Your task to perform on an android device: Open eBay Image 0: 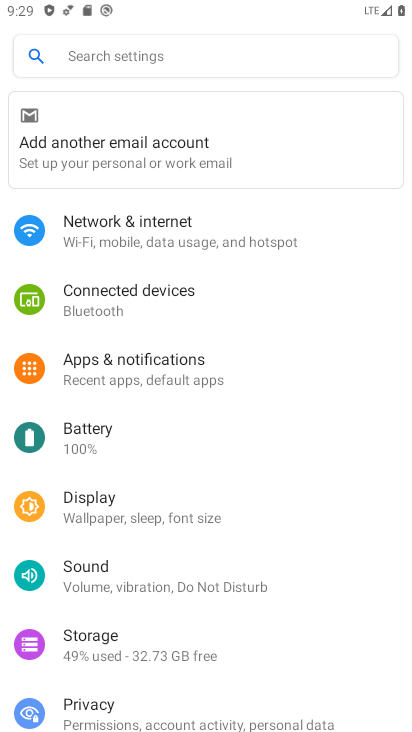
Step 0: press home button
Your task to perform on an android device: Open eBay Image 1: 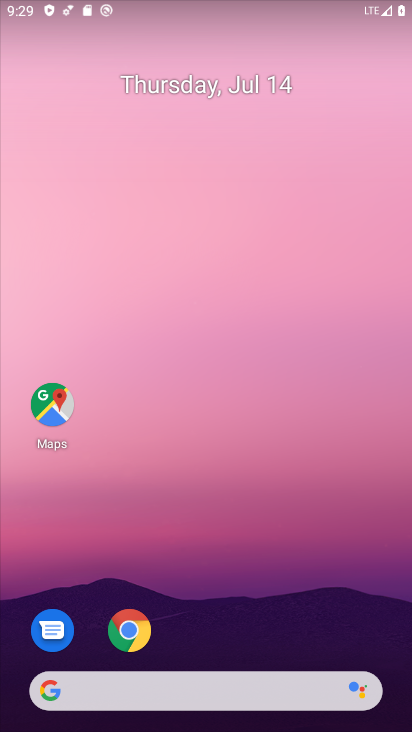
Step 1: drag from (184, 667) to (247, 108)
Your task to perform on an android device: Open eBay Image 2: 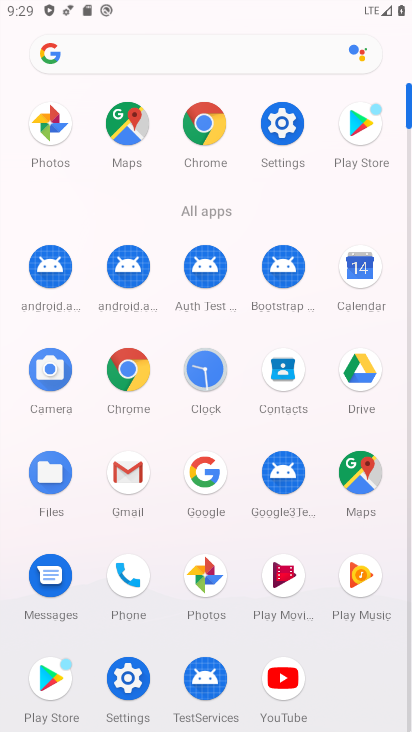
Step 2: click (131, 386)
Your task to perform on an android device: Open eBay Image 3: 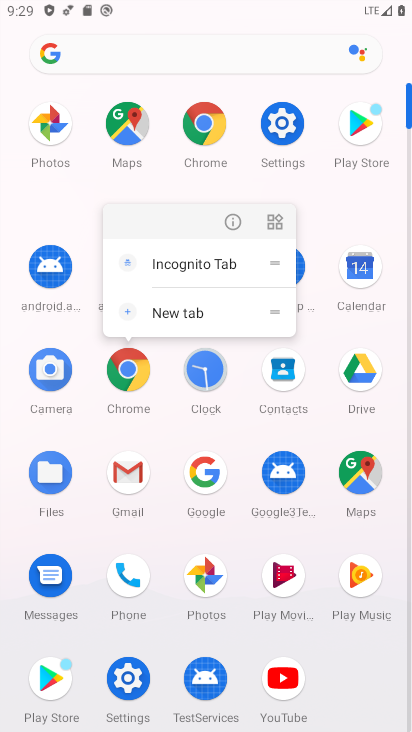
Step 3: click (131, 386)
Your task to perform on an android device: Open eBay Image 4: 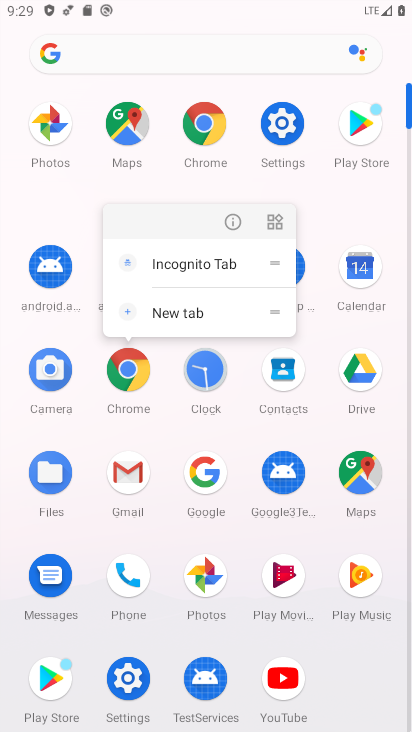
Step 4: click (131, 386)
Your task to perform on an android device: Open eBay Image 5: 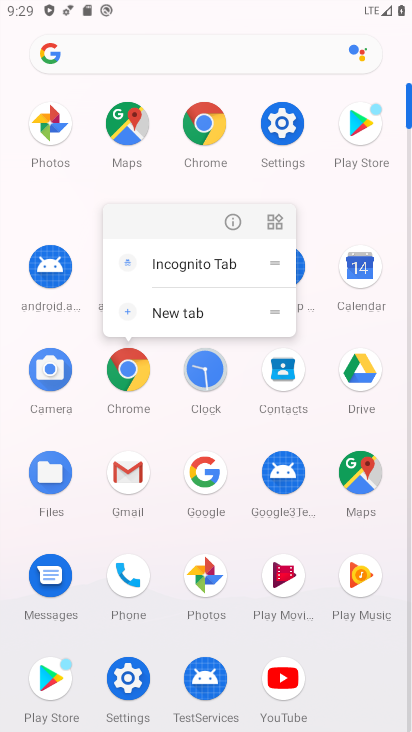
Step 5: click (132, 357)
Your task to perform on an android device: Open eBay Image 6: 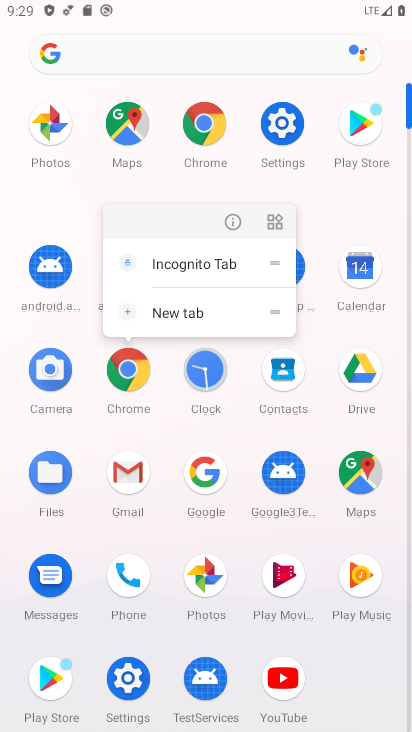
Step 6: click (127, 371)
Your task to perform on an android device: Open eBay Image 7: 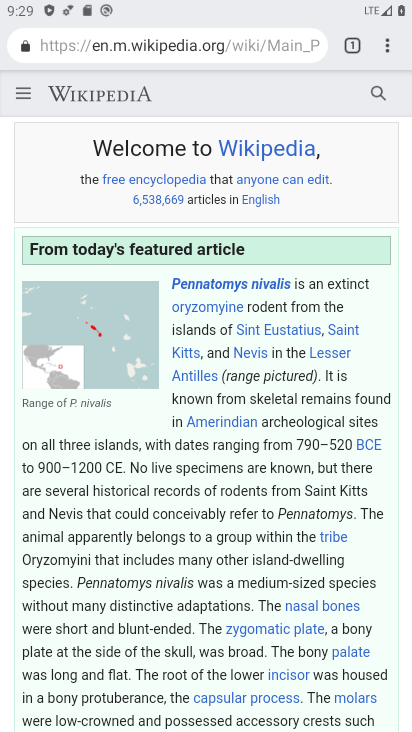
Step 7: drag from (386, 40) to (344, 68)
Your task to perform on an android device: Open eBay Image 8: 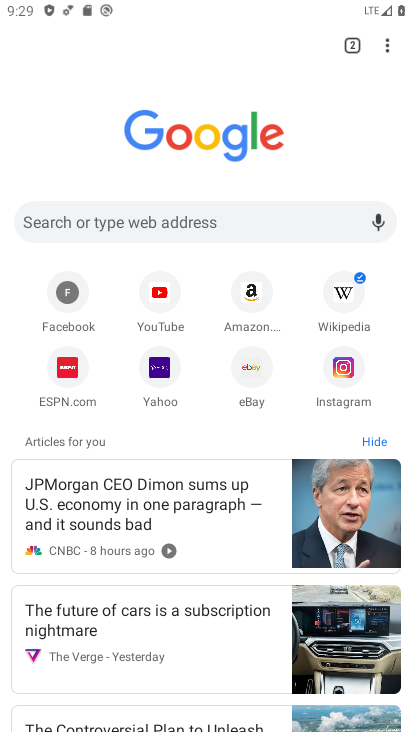
Step 8: click (265, 372)
Your task to perform on an android device: Open eBay Image 9: 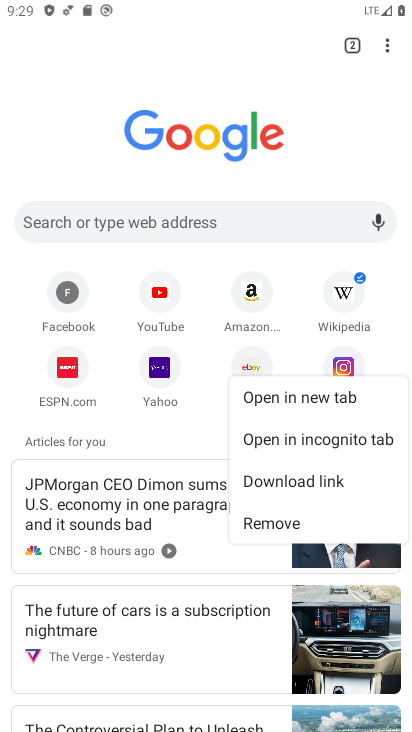
Step 9: click (257, 375)
Your task to perform on an android device: Open eBay Image 10: 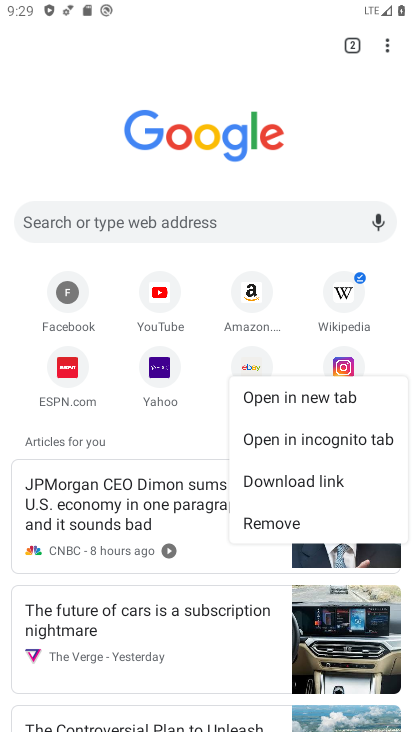
Step 10: click (255, 374)
Your task to perform on an android device: Open eBay Image 11: 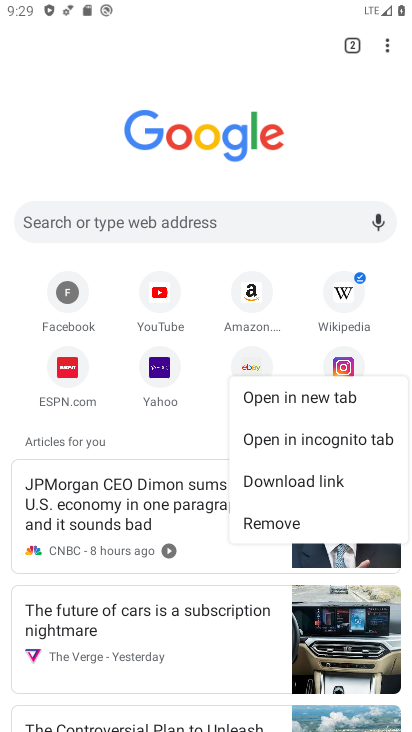
Step 11: click (253, 359)
Your task to perform on an android device: Open eBay Image 12: 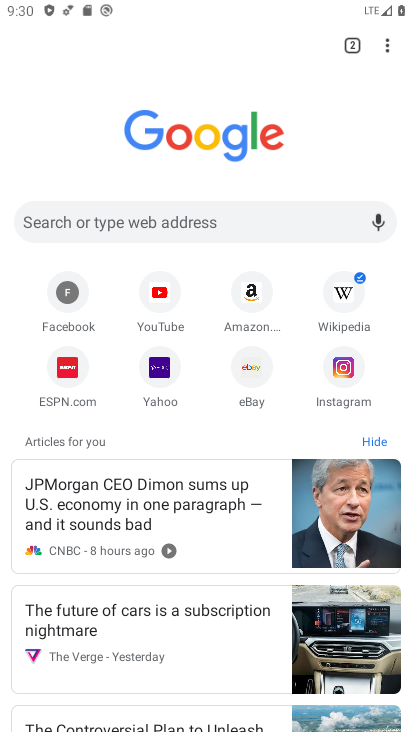
Step 12: click (252, 358)
Your task to perform on an android device: Open eBay Image 13: 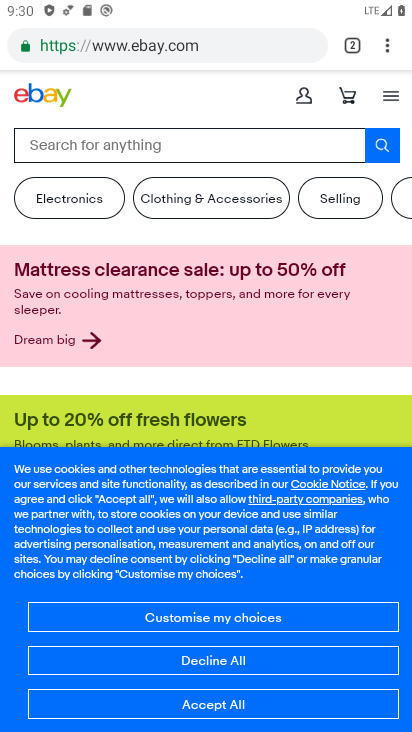
Step 13: click (212, 703)
Your task to perform on an android device: Open eBay Image 14: 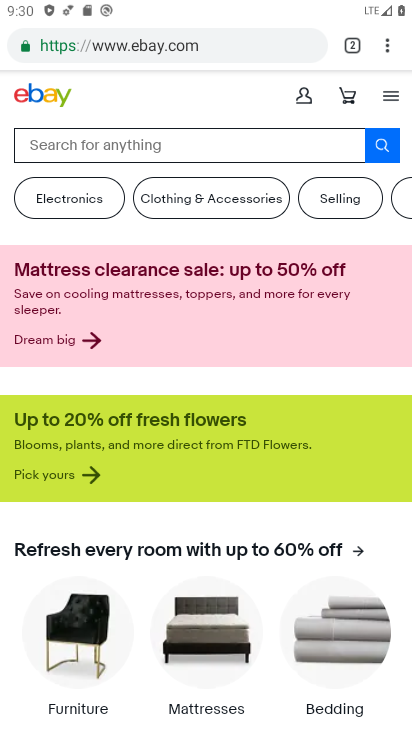
Step 14: task complete